Your task to perform on an android device: turn on bluetooth scan Image 0: 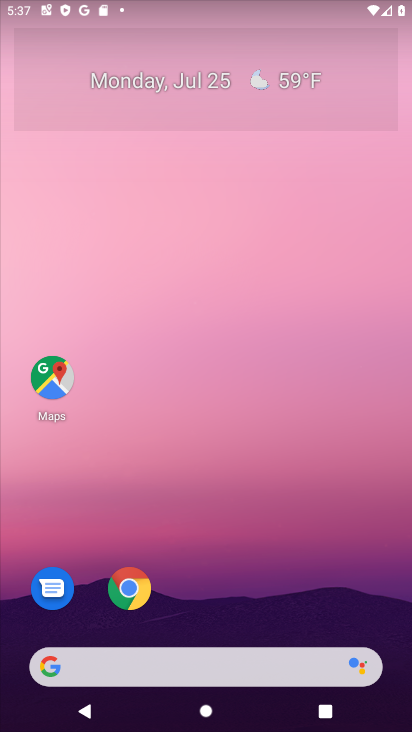
Step 0: drag from (280, 484) to (246, 126)
Your task to perform on an android device: turn on bluetooth scan Image 1: 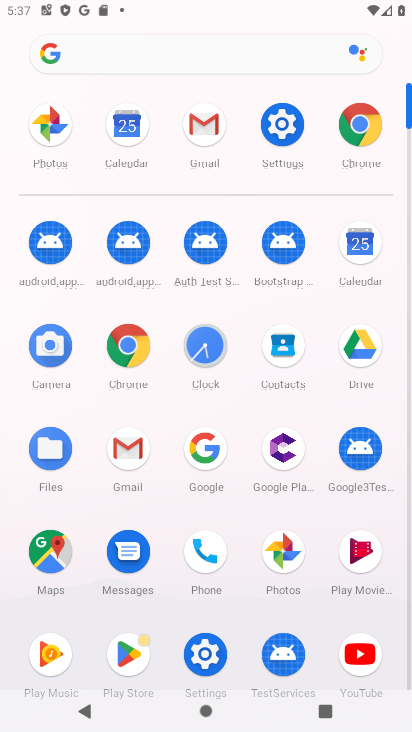
Step 1: click (282, 117)
Your task to perform on an android device: turn on bluetooth scan Image 2: 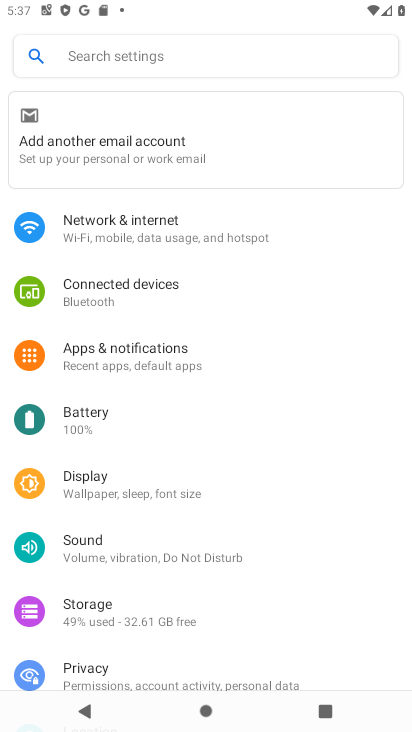
Step 2: click (163, 213)
Your task to perform on an android device: turn on bluetooth scan Image 3: 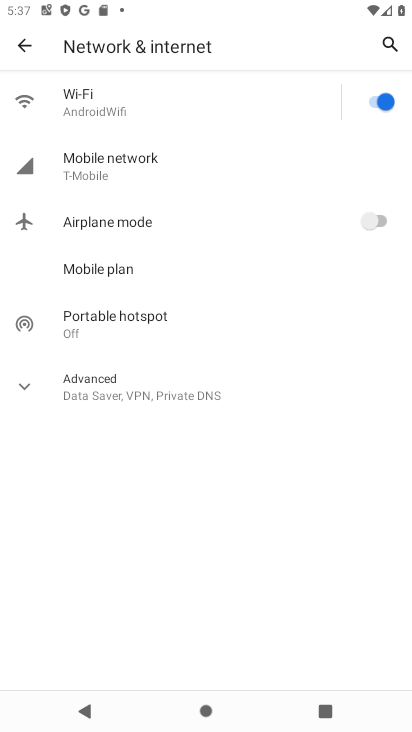
Step 3: task complete